Your task to perform on an android device: Turn off the flashlight Image 0: 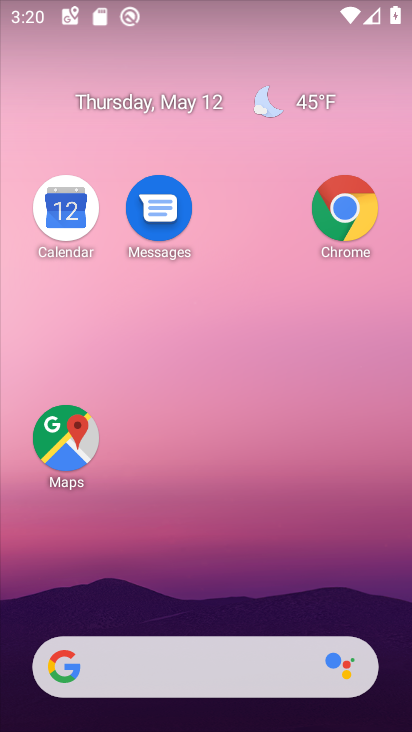
Step 0: drag from (185, 505) to (221, 248)
Your task to perform on an android device: Turn off the flashlight Image 1: 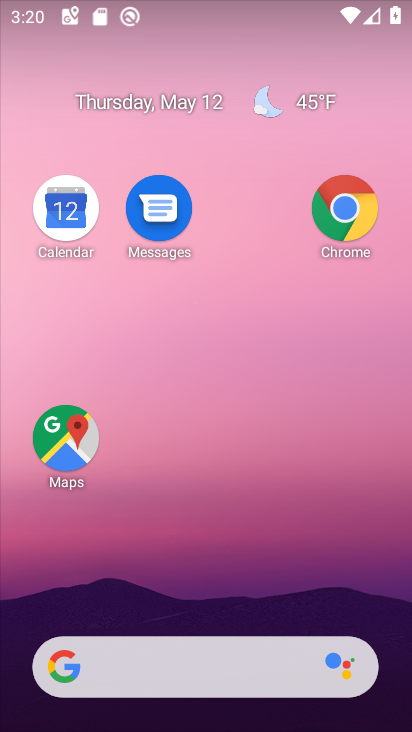
Step 1: drag from (234, 516) to (253, 366)
Your task to perform on an android device: Turn off the flashlight Image 2: 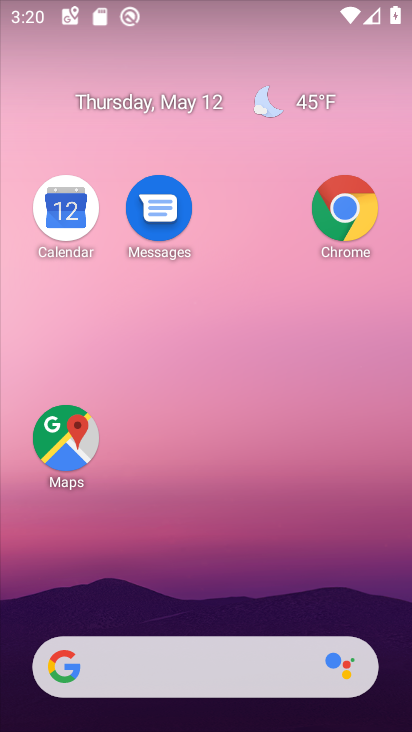
Step 2: drag from (260, 612) to (258, 199)
Your task to perform on an android device: Turn off the flashlight Image 3: 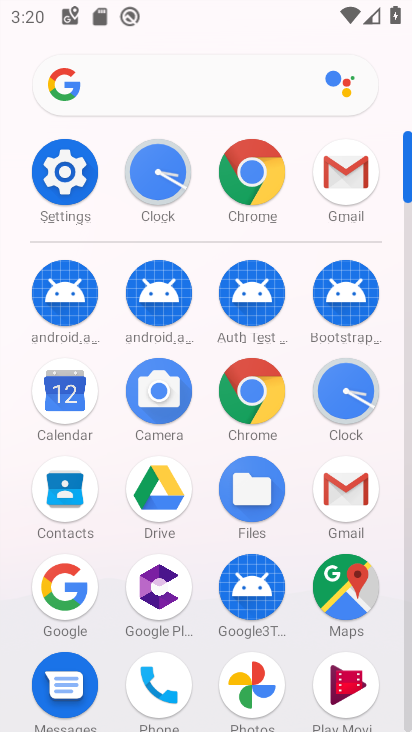
Step 3: click (48, 176)
Your task to perform on an android device: Turn off the flashlight Image 4: 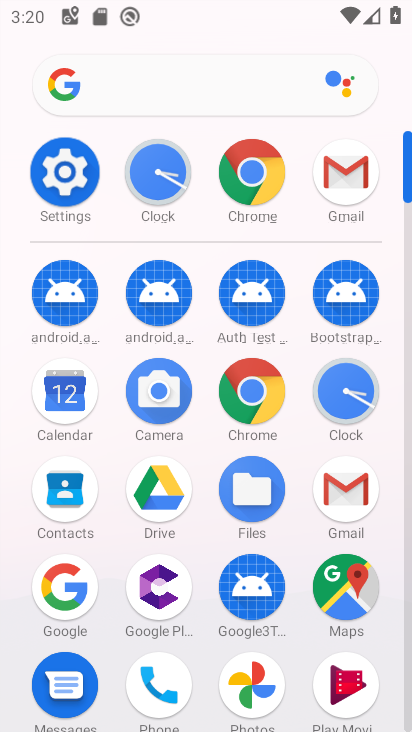
Step 4: click (48, 176)
Your task to perform on an android device: Turn off the flashlight Image 5: 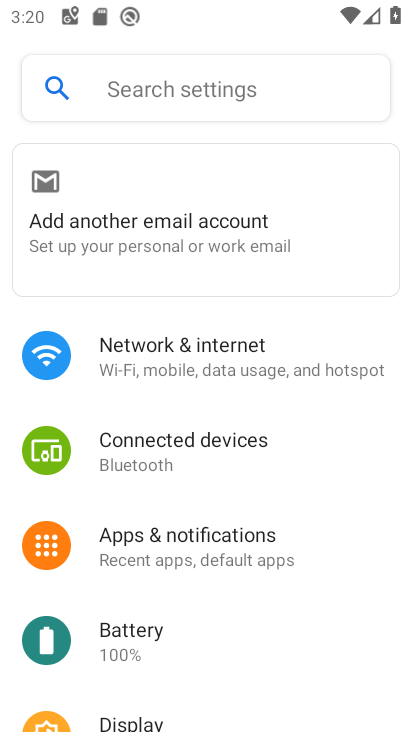
Step 5: click (198, 72)
Your task to perform on an android device: Turn off the flashlight Image 6: 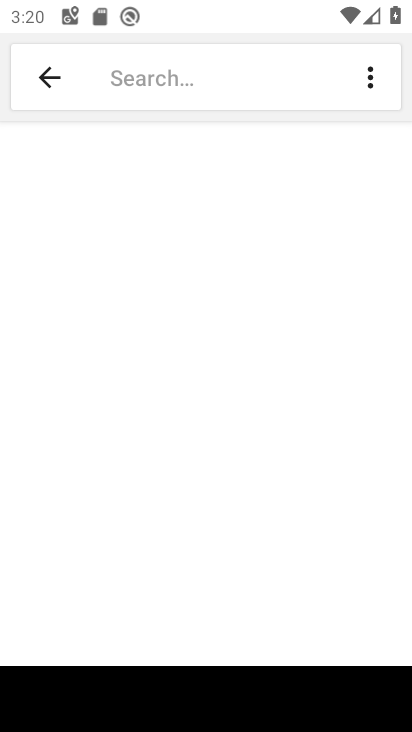
Step 6: type "flashlight"
Your task to perform on an android device: Turn off the flashlight Image 7: 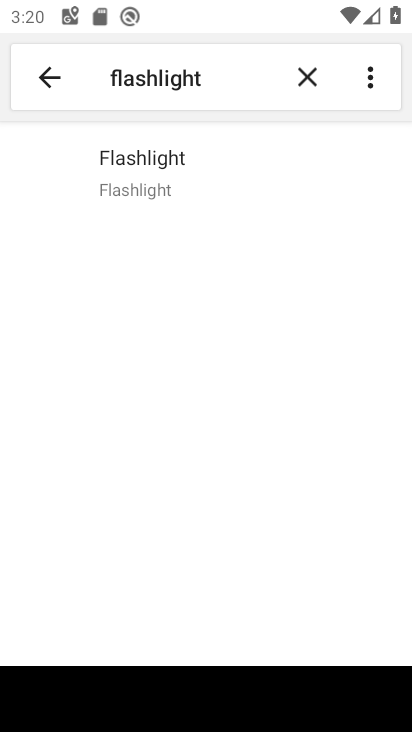
Step 7: click (219, 172)
Your task to perform on an android device: Turn off the flashlight Image 8: 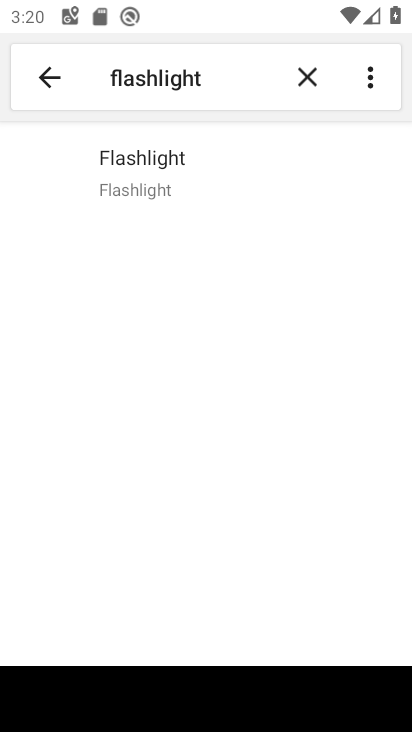
Step 8: click (266, 162)
Your task to perform on an android device: Turn off the flashlight Image 9: 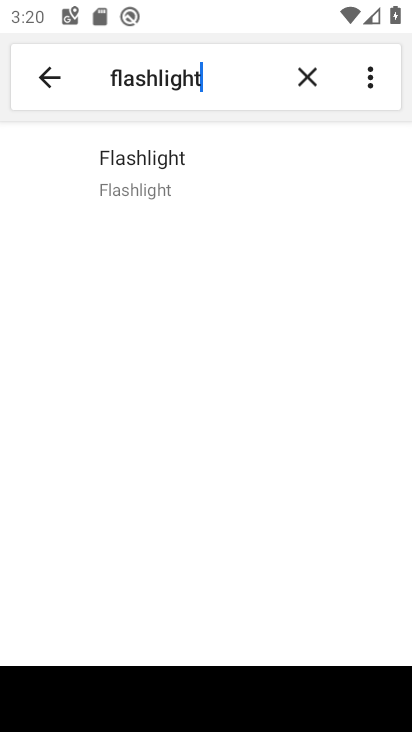
Step 9: task complete